Your task to perform on an android device: Open CNN.com Image 0: 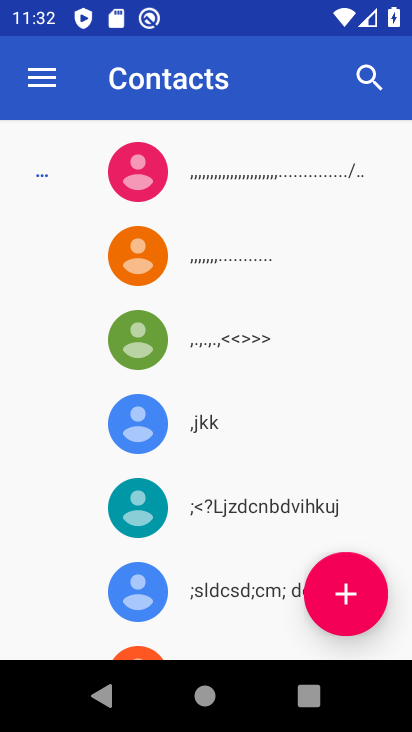
Step 0: press home button
Your task to perform on an android device: Open CNN.com Image 1: 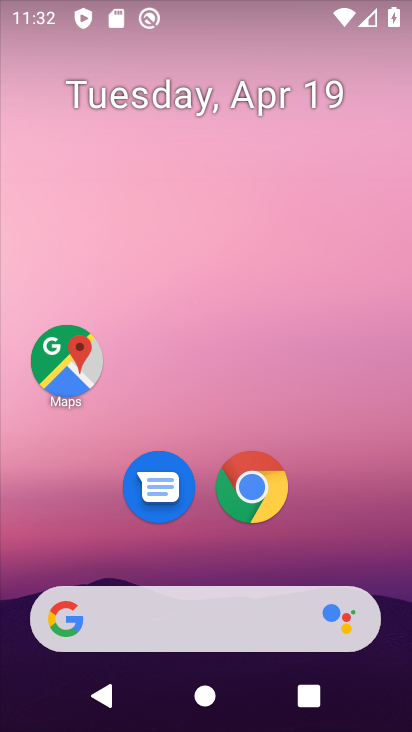
Step 1: click (259, 498)
Your task to perform on an android device: Open CNN.com Image 2: 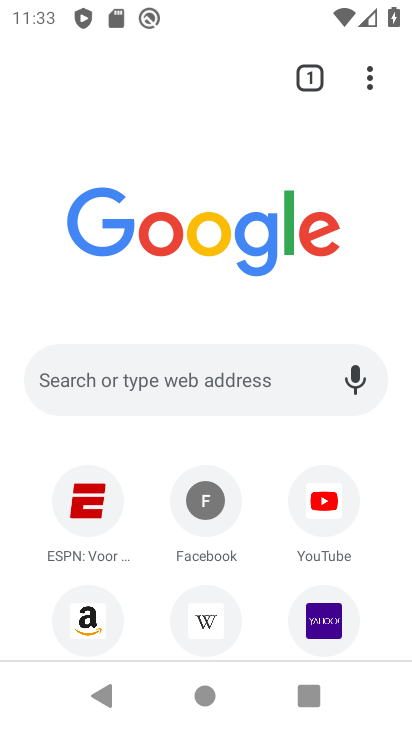
Step 2: click (232, 373)
Your task to perform on an android device: Open CNN.com Image 3: 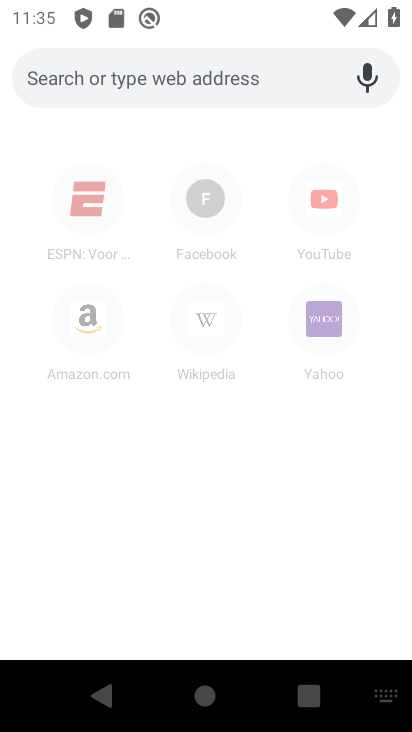
Step 3: type "cnn.com"
Your task to perform on an android device: Open CNN.com Image 4: 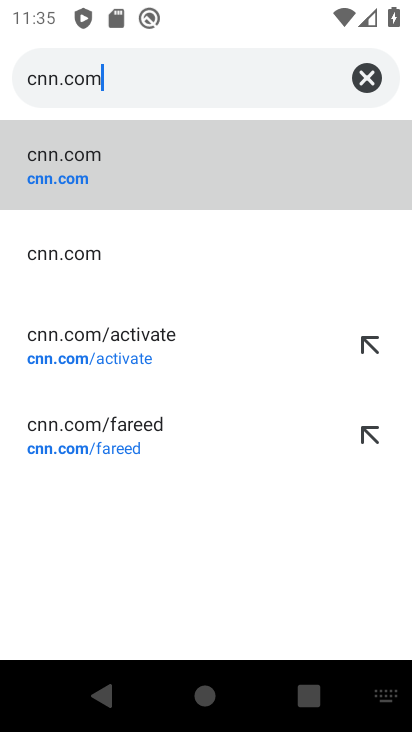
Step 4: click (164, 199)
Your task to perform on an android device: Open CNN.com Image 5: 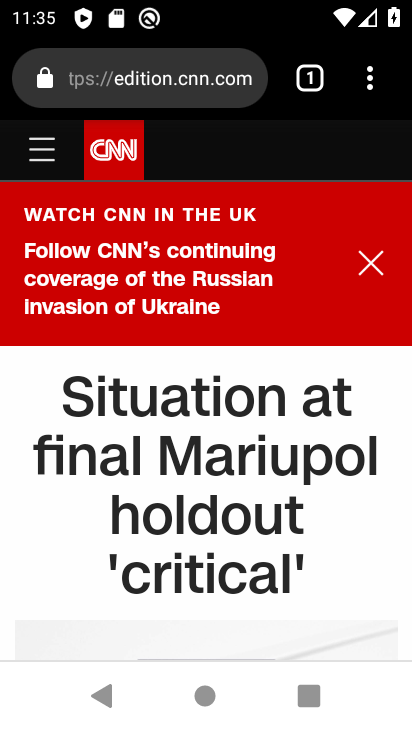
Step 5: task complete